Your task to perform on an android device: Do I have any events this weekend? Image 0: 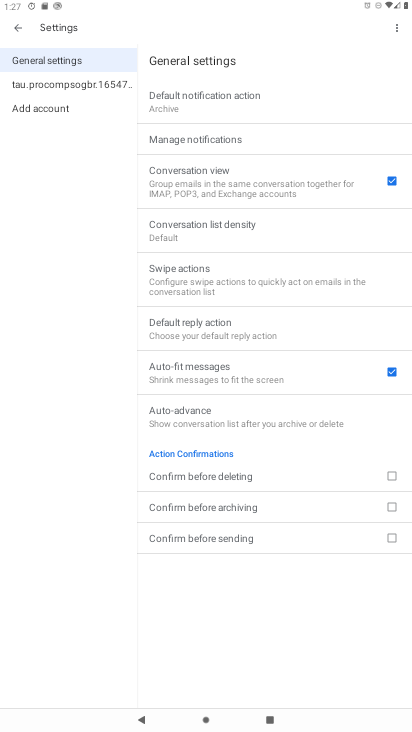
Step 0: press home button
Your task to perform on an android device: Do I have any events this weekend? Image 1: 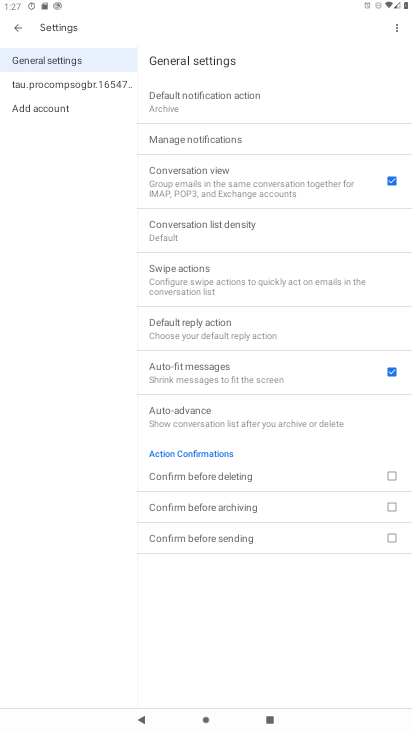
Step 1: press home button
Your task to perform on an android device: Do I have any events this weekend? Image 2: 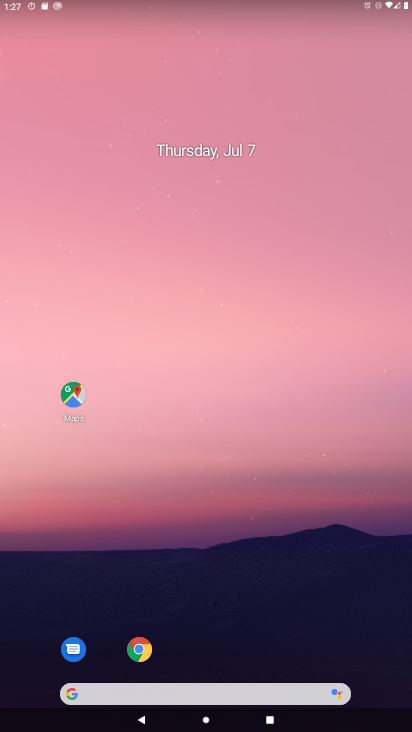
Step 2: drag from (197, 667) to (146, 164)
Your task to perform on an android device: Do I have any events this weekend? Image 3: 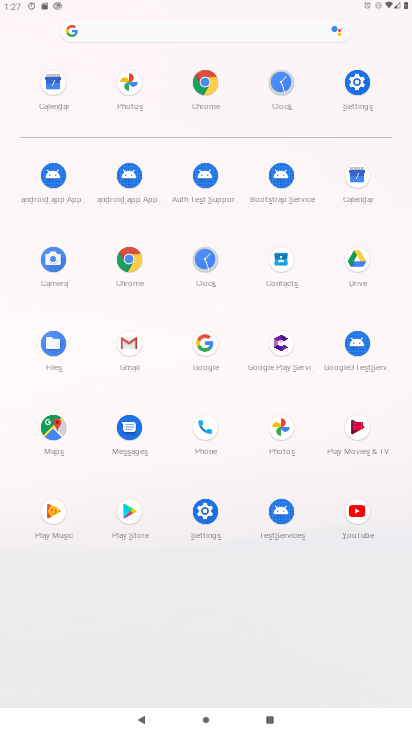
Step 3: click (364, 173)
Your task to perform on an android device: Do I have any events this weekend? Image 4: 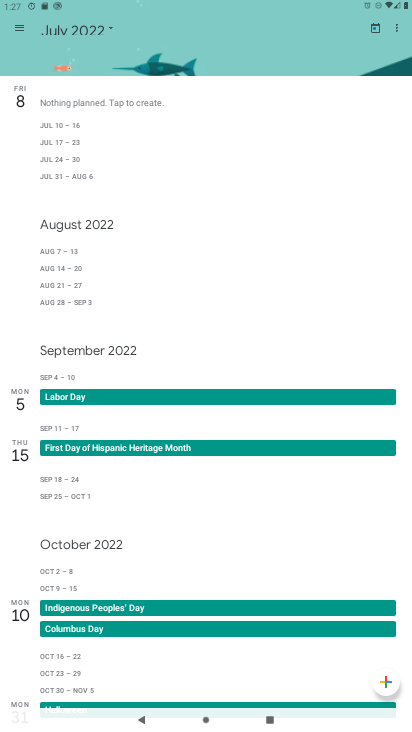
Step 4: click (372, 32)
Your task to perform on an android device: Do I have any events this weekend? Image 5: 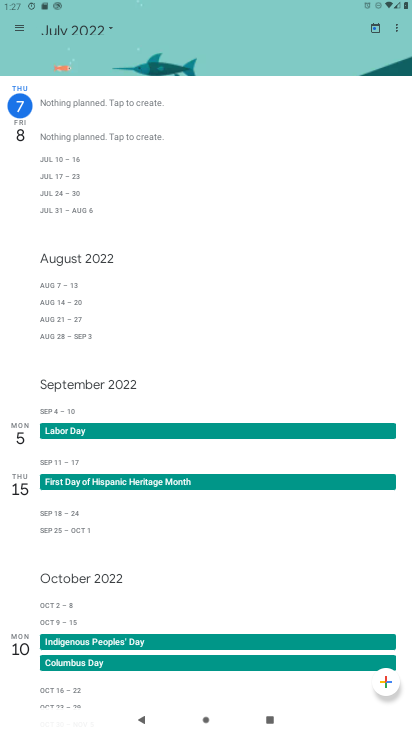
Step 5: click (16, 32)
Your task to perform on an android device: Do I have any events this weekend? Image 6: 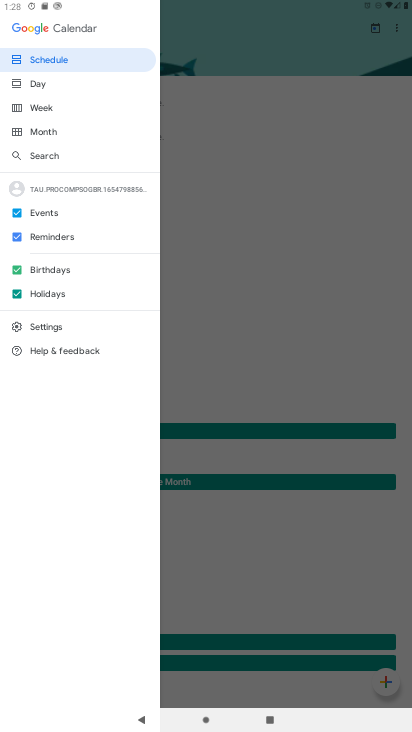
Step 6: click (30, 108)
Your task to perform on an android device: Do I have any events this weekend? Image 7: 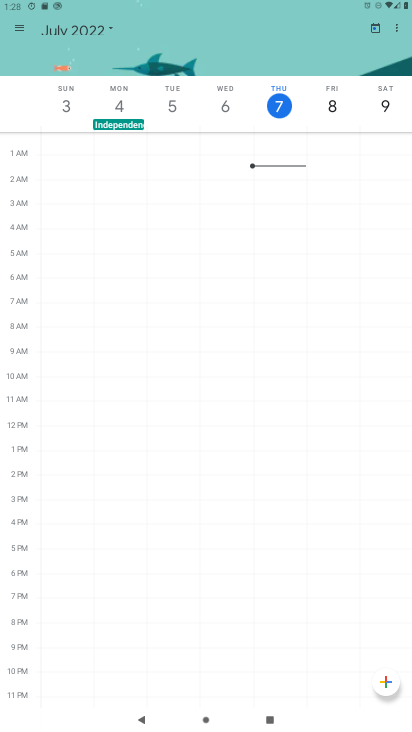
Step 7: task complete